Your task to perform on an android device: turn off translation in the chrome app Image 0: 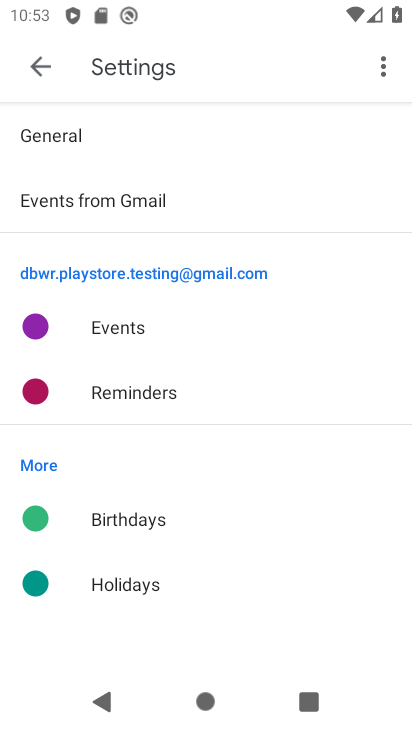
Step 0: press home button
Your task to perform on an android device: turn off translation in the chrome app Image 1: 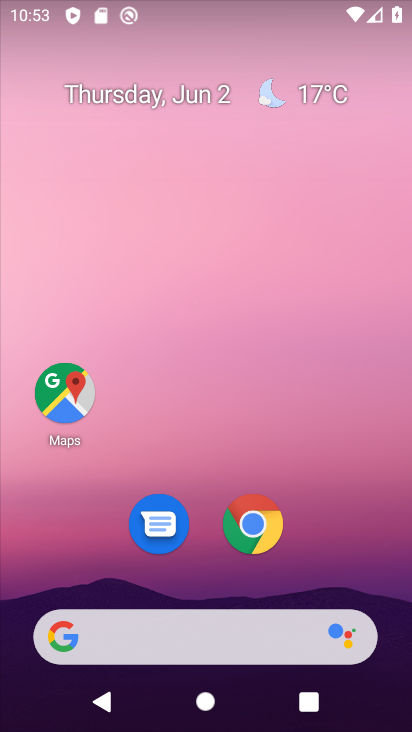
Step 1: drag from (225, 454) to (245, 0)
Your task to perform on an android device: turn off translation in the chrome app Image 2: 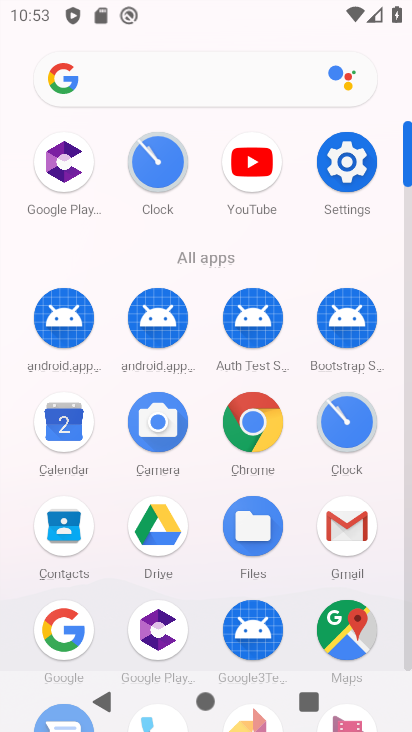
Step 2: click (257, 423)
Your task to perform on an android device: turn off translation in the chrome app Image 3: 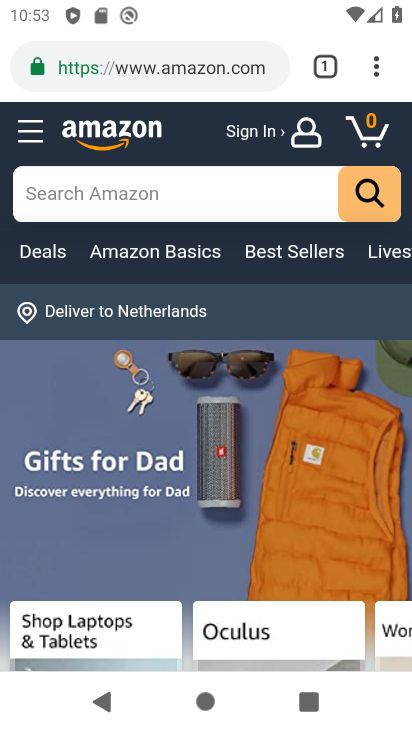
Step 3: click (376, 70)
Your task to perform on an android device: turn off translation in the chrome app Image 4: 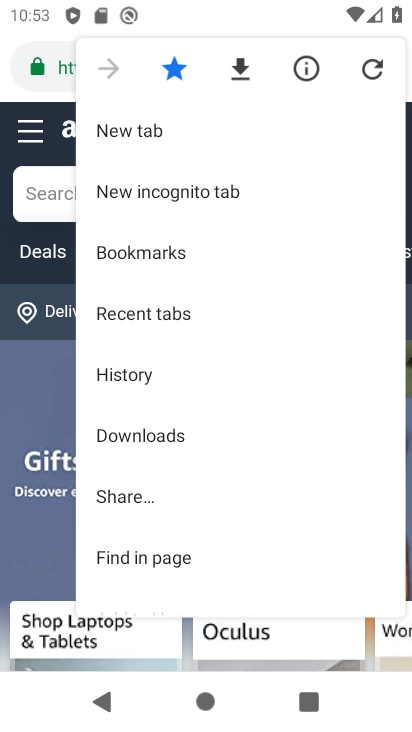
Step 4: drag from (279, 387) to (246, 77)
Your task to perform on an android device: turn off translation in the chrome app Image 5: 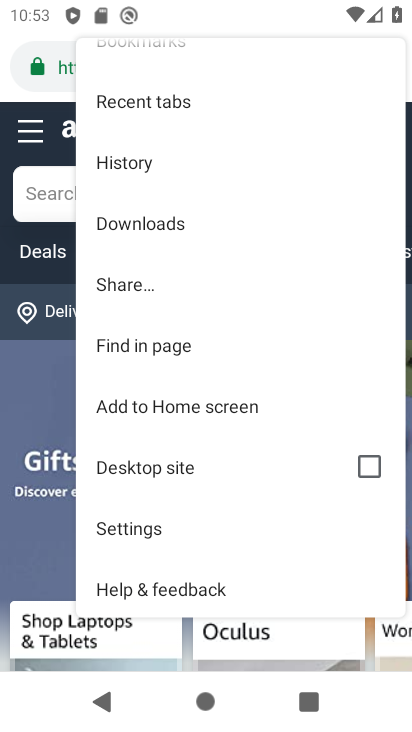
Step 5: click (192, 530)
Your task to perform on an android device: turn off translation in the chrome app Image 6: 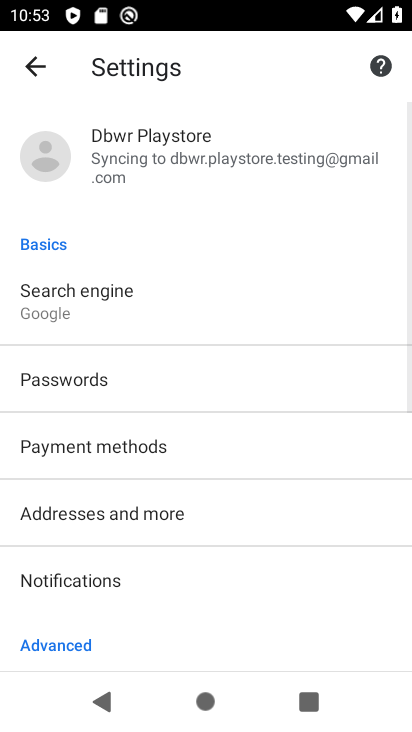
Step 6: drag from (243, 471) to (255, 90)
Your task to perform on an android device: turn off translation in the chrome app Image 7: 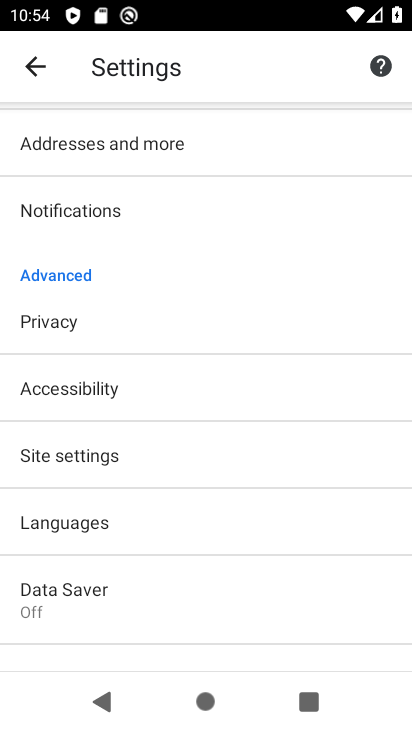
Step 7: click (156, 518)
Your task to perform on an android device: turn off translation in the chrome app Image 8: 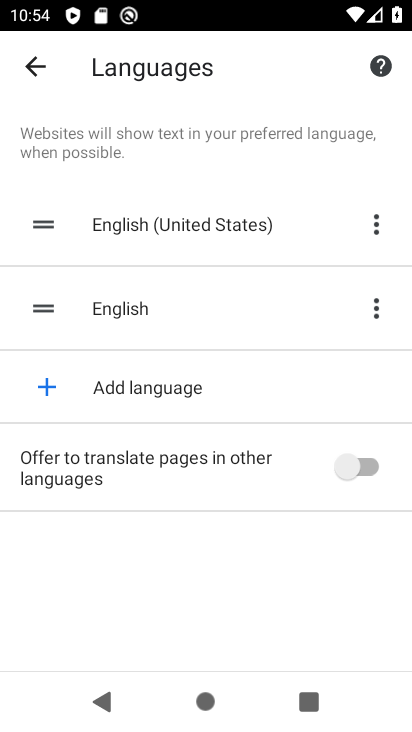
Step 8: click (362, 471)
Your task to perform on an android device: turn off translation in the chrome app Image 9: 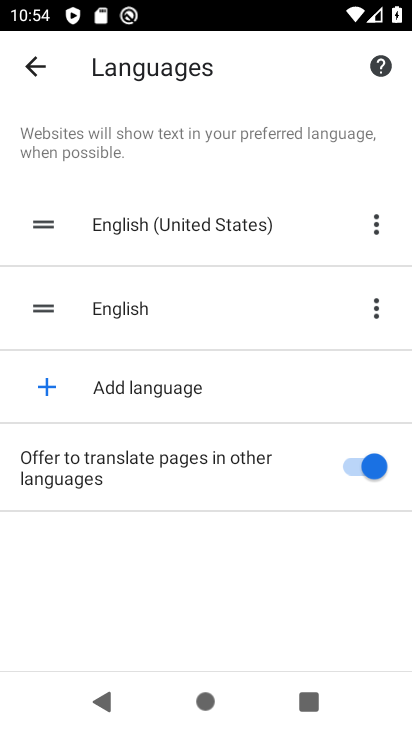
Step 9: task complete